Your task to perform on an android device: Play the last video I watched on Youtube Image 0: 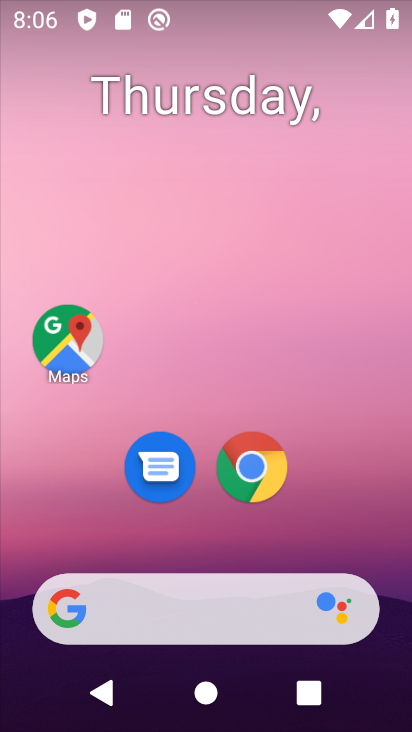
Step 0: drag from (250, 490) to (348, 89)
Your task to perform on an android device: Play the last video I watched on Youtube Image 1: 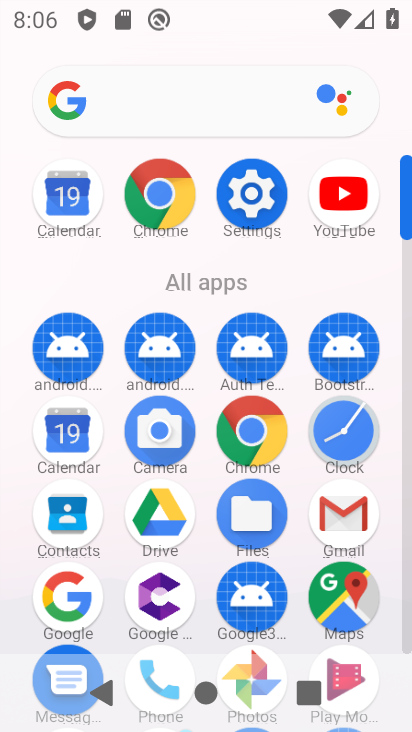
Step 1: click (351, 205)
Your task to perform on an android device: Play the last video I watched on Youtube Image 2: 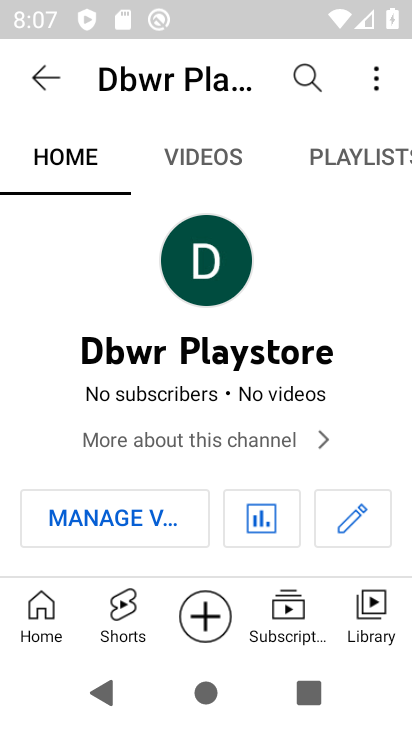
Step 2: click (371, 617)
Your task to perform on an android device: Play the last video I watched on Youtube Image 3: 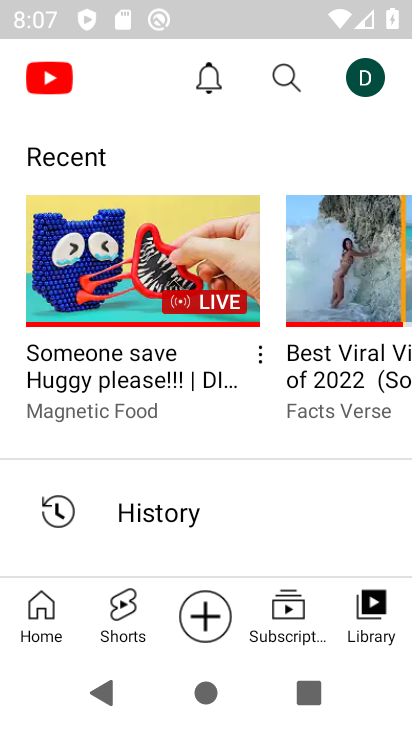
Step 3: click (126, 266)
Your task to perform on an android device: Play the last video I watched on Youtube Image 4: 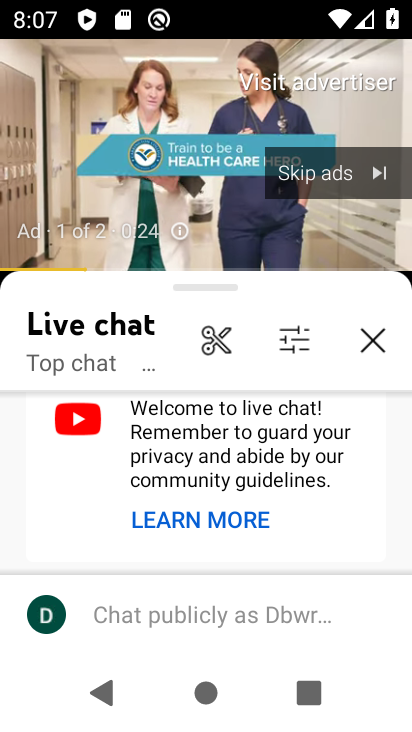
Step 4: click (378, 167)
Your task to perform on an android device: Play the last video I watched on Youtube Image 5: 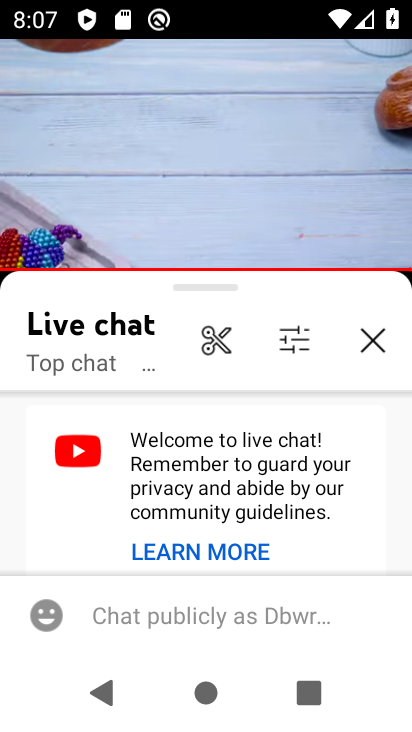
Step 5: task complete